Your task to perform on an android device: turn off notifications in google photos Image 0: 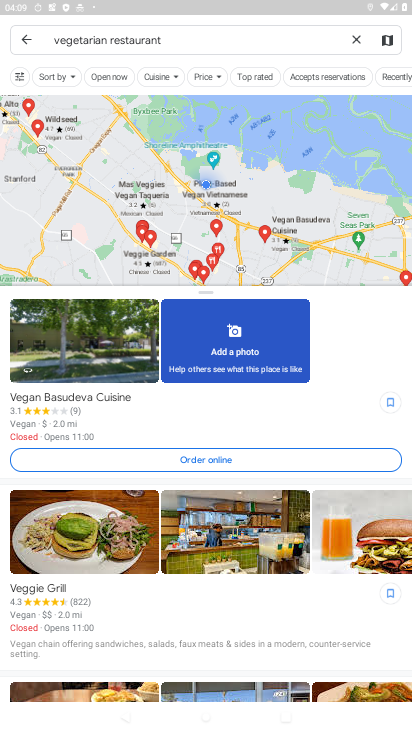
Step 0: press home button
Your task to perform on an android device: turn off notifications in google photos Image 1: 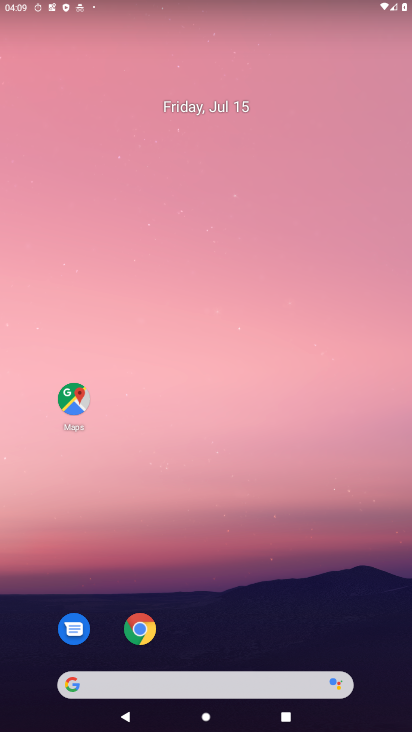
Step 1: drag from (260, 646) to (295, 161)
Your task to perform on an android device: turn off notifications in google photos Image 2: 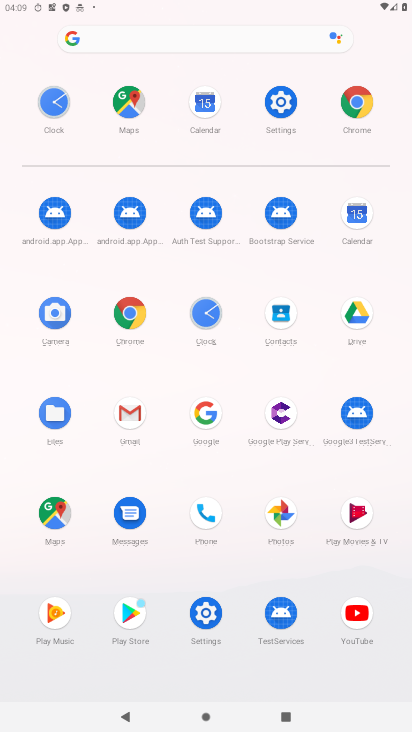
Step 2: click (284, 518)
Your task to perform on an android device: turn off notifications in google photos Image 3: 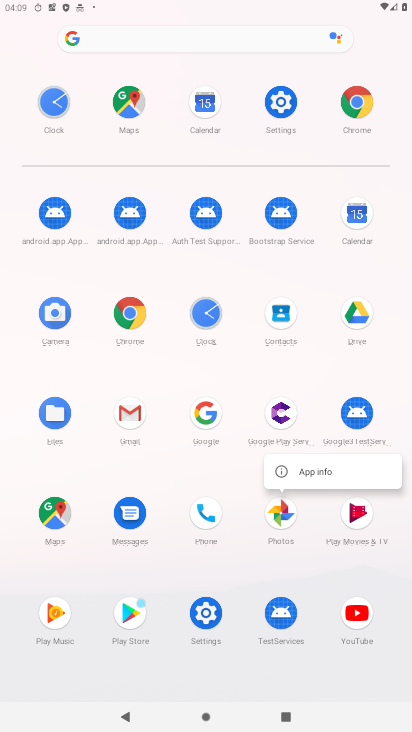
Step 3: click (333, 466)
Your task to perform on an android device: turn off notifications in google photos Image 4: 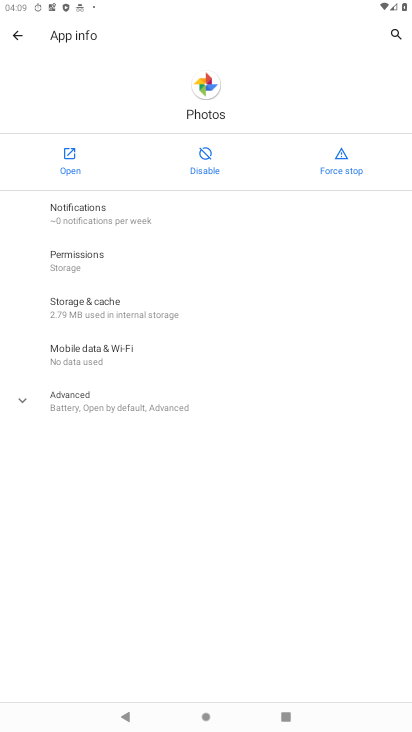
Step 4: click (105, 216)
Your task to perform on an android device: turn off notifications in google photos Image 5: 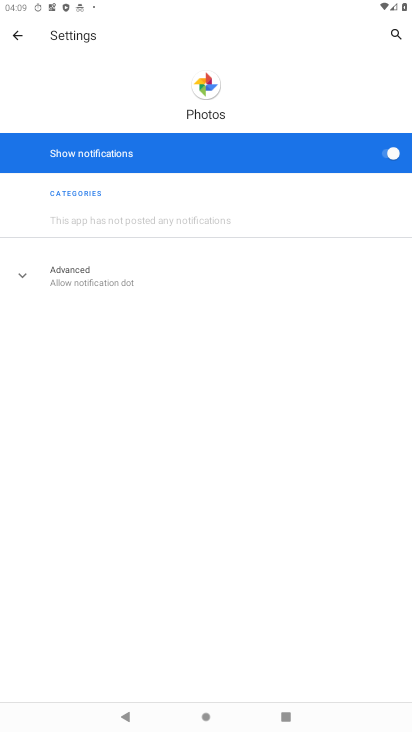
Step 5: click (332, 150)
Your task to perform on an android device: turn off notifications in google photos Image 6: 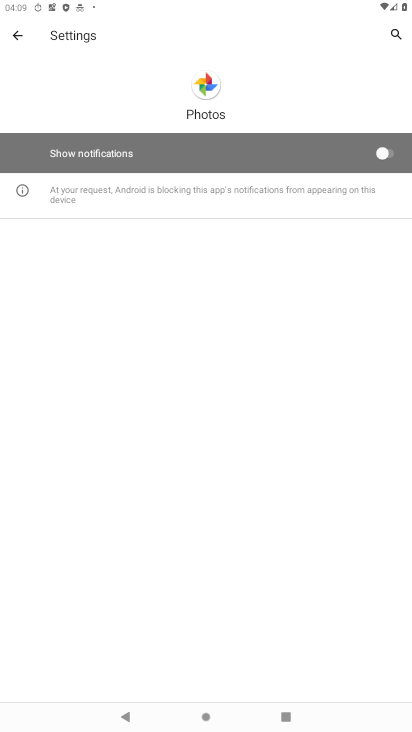
Step 6: task complete